Your task to perform on an android device: Open my contact list Image 0: 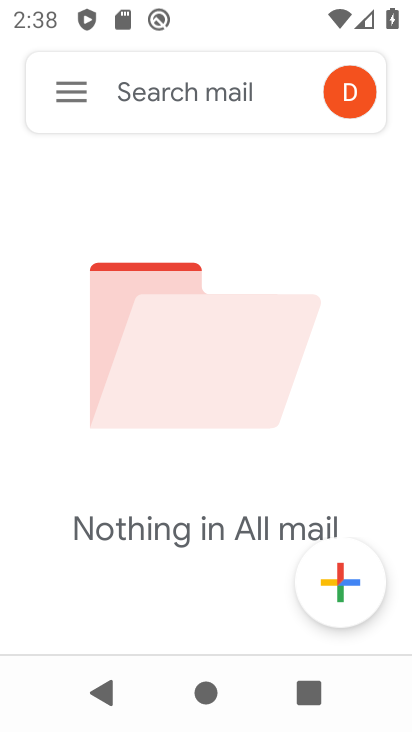
Step 0: press home button
Your task to perform on an android device: Open my contact list Image 1: 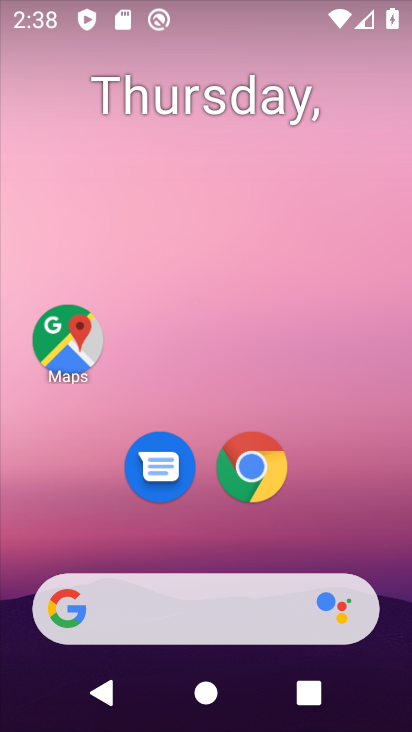
Step 1: drag from (228, 591) to (214, 376)
Your task to perform on an android device: Open my contact list Image 2: 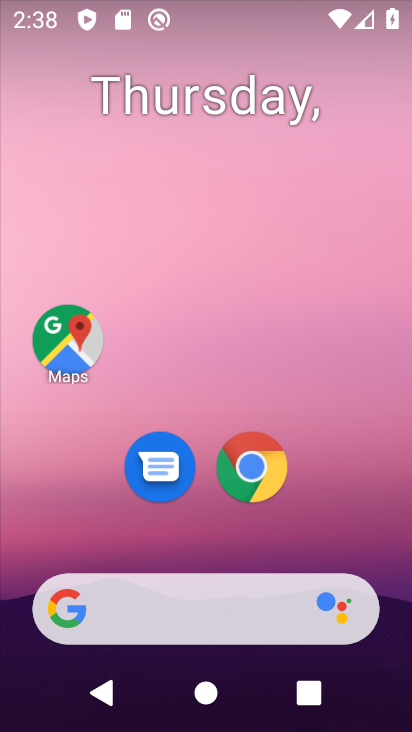
Step 2: drag from (214, 580) to (272, 17)
Your task to perform on an android device: Open my contact list Image 3: 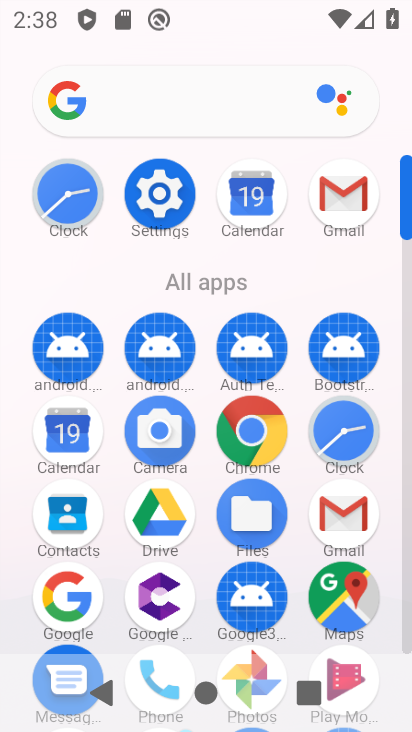
Step 3: click (81, 526)
Your task to perform on an android device: Open my contact list Image 4: 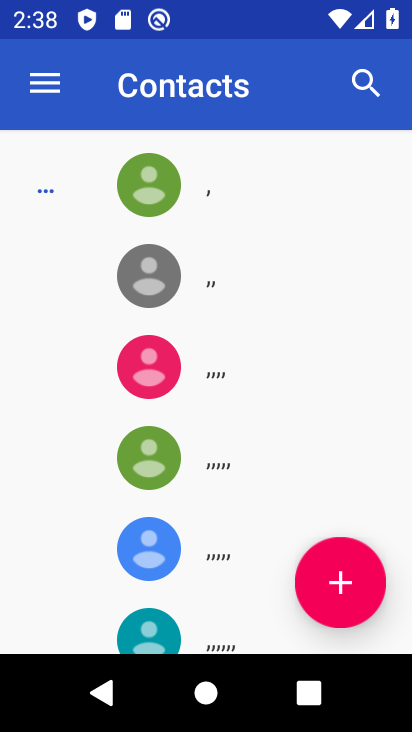
Step 4: task complete